Your task to perform on an android device: Show me the alarms in the clock app Image 0: 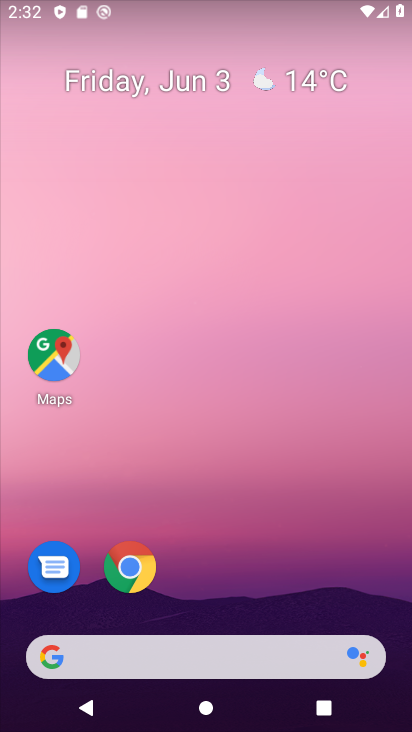
Step 0: drag from (262, 682) to (173, 97)
Your task to perform on an android device: Show me the alarms in the clock app Image 1: 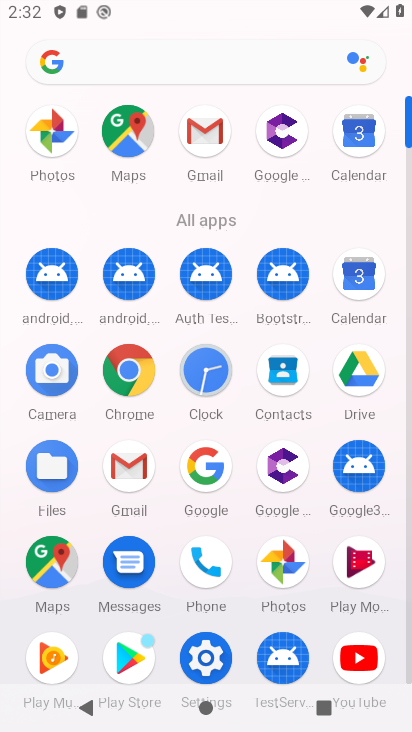
Step 1: click (213, 361)
Your task to perform on an android device: Show me the alarms in the clock app Image 2: 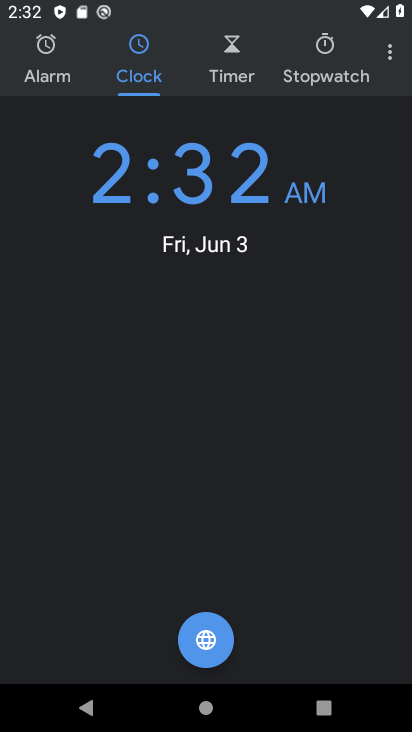
Step 2: click (68, 57)
Your task to perform on an android device: Show me the alarms in the clock app Image 3: 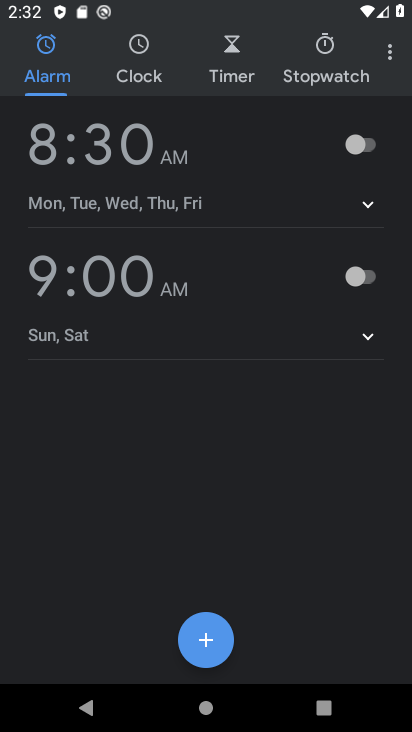
Step 3: click (364, 155)
Your task to perform on an android device: Show me the alarms in the clock app Image 4: 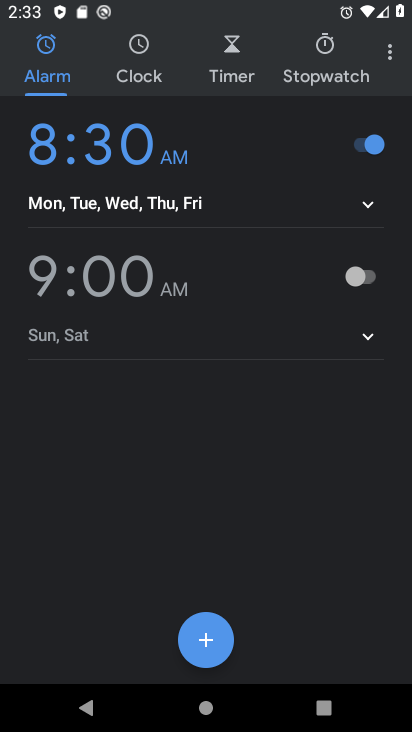
Step 4: task complete